Your task to perform on an android device: toggle wifi Image 0: 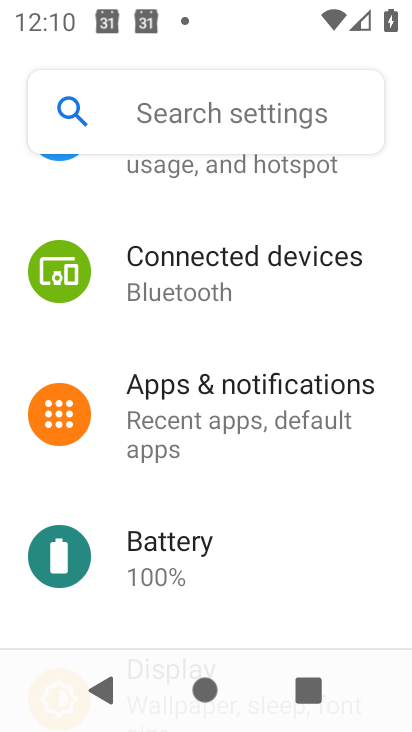
Step 0: drag from (229, 224) to (259, 623)
Your task to perform on an android device: toggle wifi Image 1: 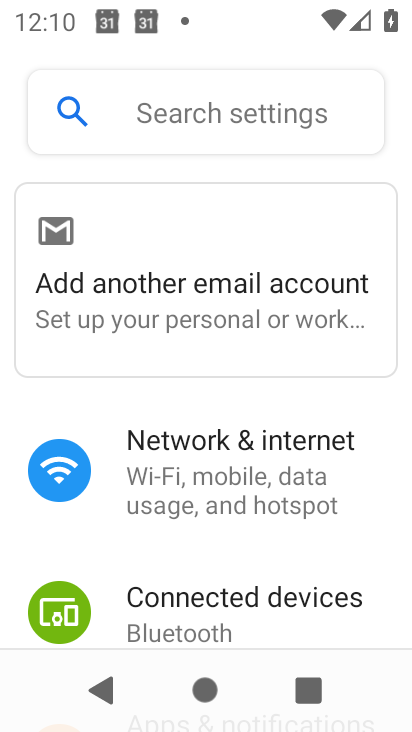
Step 1: click (237, 413)
Your task to perform on an android device: toggle wifi Image 2: 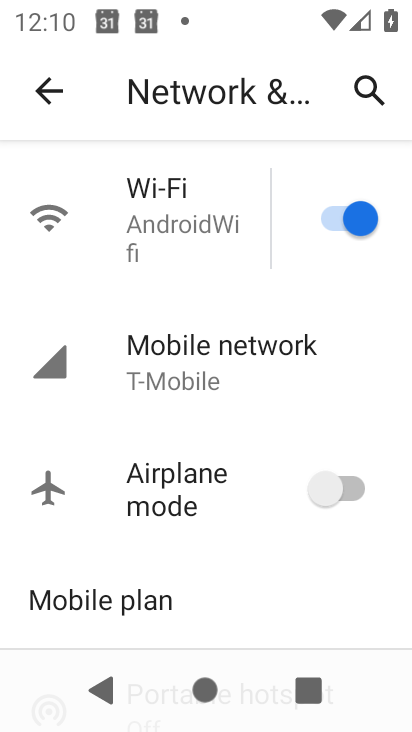
Step 2: click (347, 233)
Your task to perform on an android device: toggle wifi Image 3: 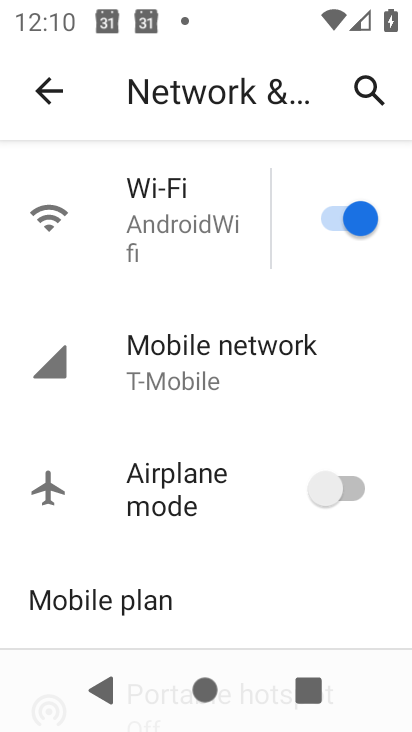
Step 3: click (347, 233)
Your task to perform on an android device: toggle wifi Image 4: 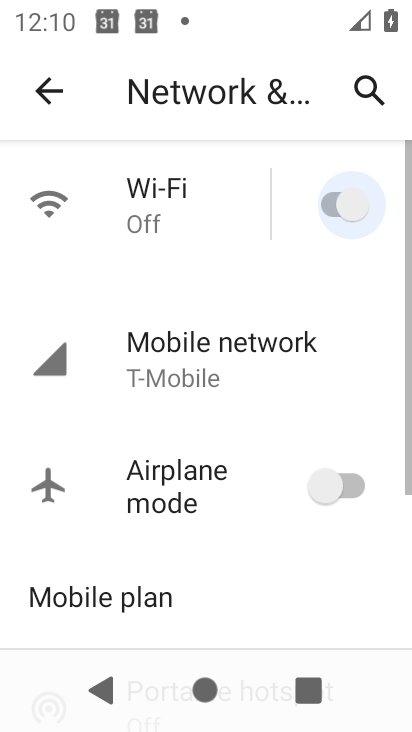
Step 4: click (347, 233)
Your task to perform on an android device: toggle wifi Image 5: 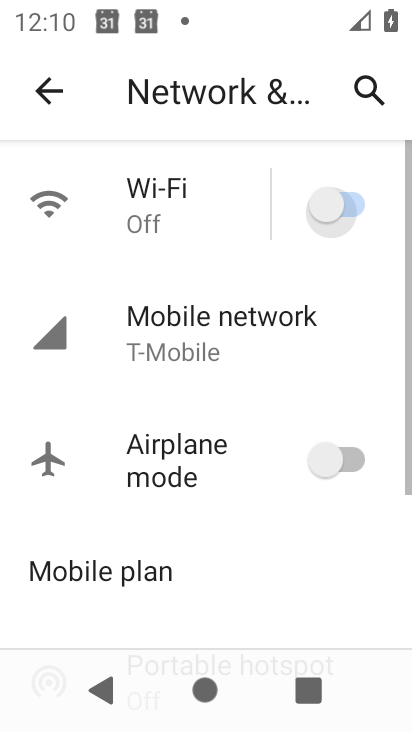
Step 5: click (347, 233)
Your task to perform on an android device: toggle wifi Image 6: 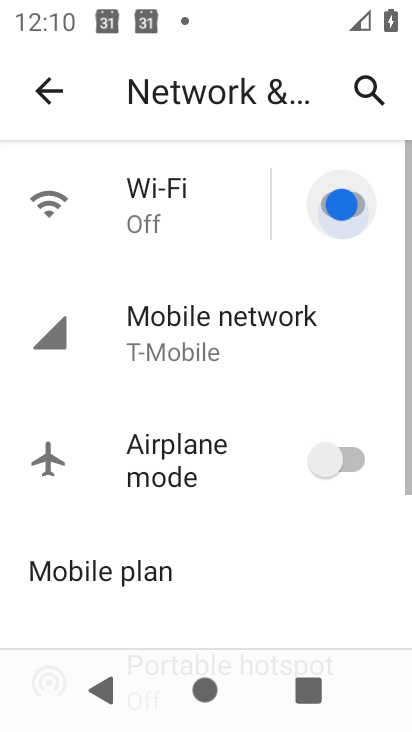
Step 6: click (347, 233)
Your task to perform on an android device: toggle wifi Image 7: 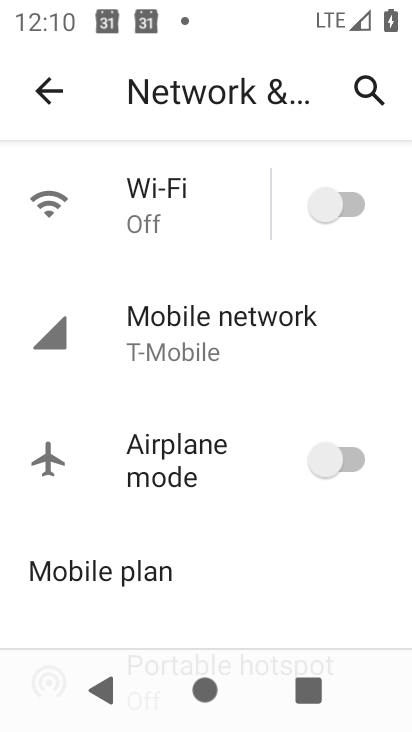
Step 7: click (341, 196)
Your task to perform on an android device: toggle wifi Image 8: 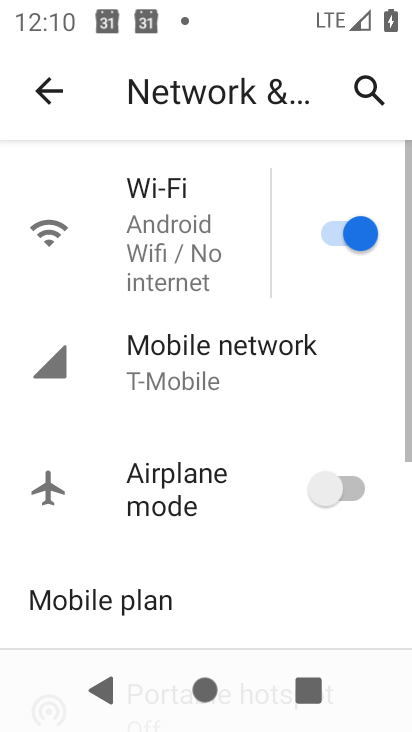
Step 8: task complete